Your task to perform on an android device: Search for vegetarian restaurants on Maps Image 0: 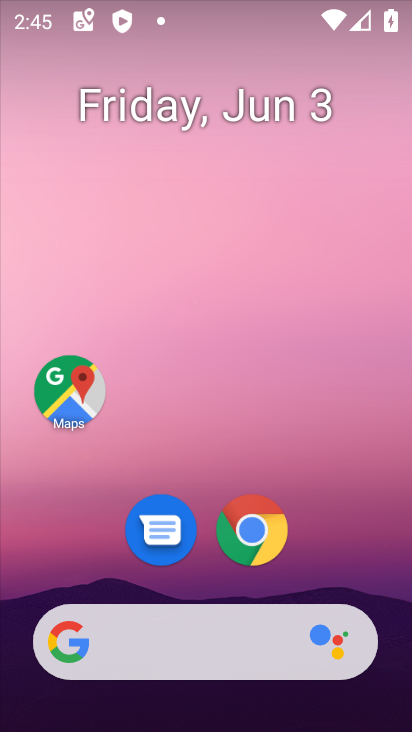
Step 0: click (66, 388)
Your task to perform on an android device: Search for vegetarian restaurants on Maps Image 1: 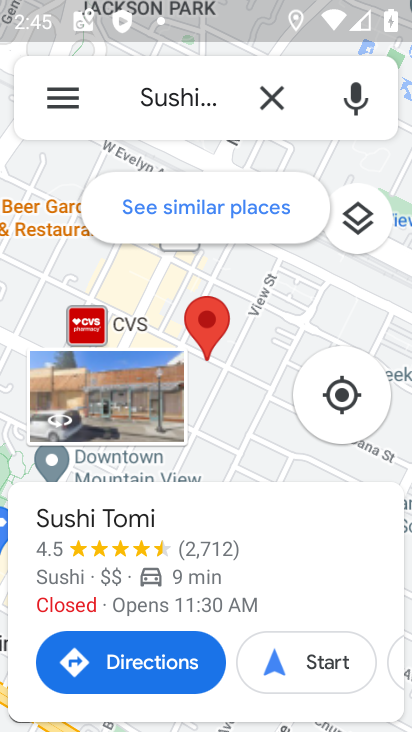
Step 1: click (274, 97)
Your task to perform on an android device: Search for vegetarian restaurants on Maps Image 2: 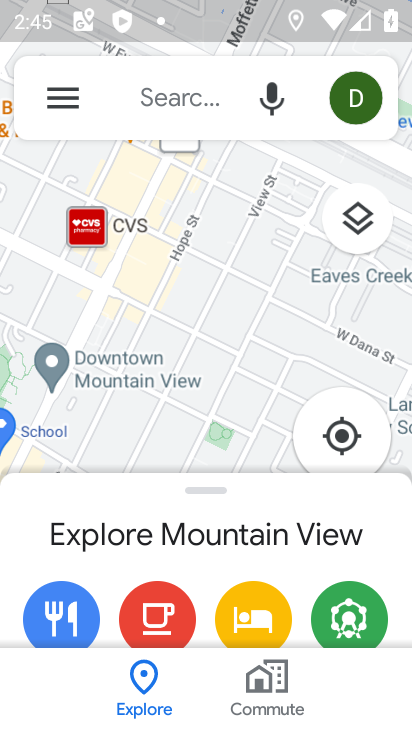
Step 2: click (204, 93)
Your task to perform on an android device: Search for vegetarian restaurants on Maps Image 3: 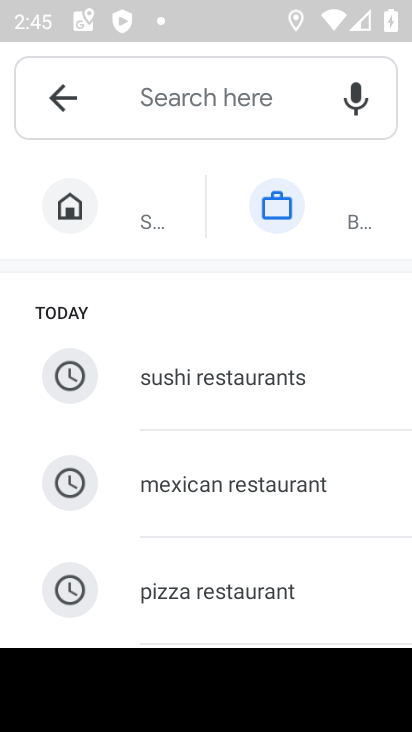
Step 3: type "vegetarian"
Your task to perform on an android device: Search for vegetarian restaurants on Maps Image 4: 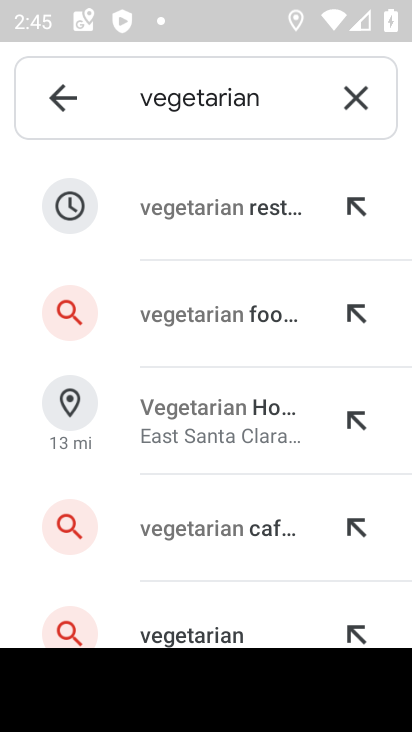
Step 4: click (239, 207)
Your task to perform on an android device: Search for vegetarian restaurants on Maps Image 5: 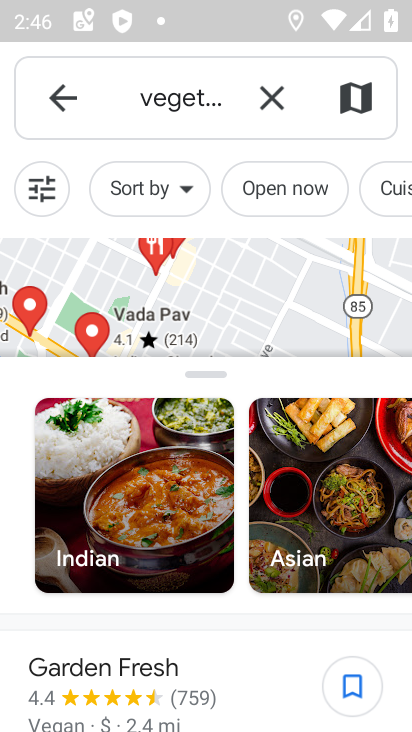
Step 5: task complete